Your task to perform on an android device: Search for a dining table on crateandbarrel.com Image 0: 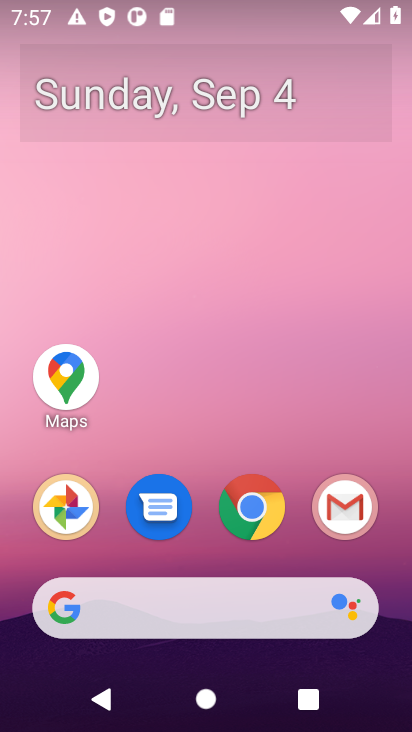
Step 0: click (255, 502)
Your task to perform on an android device: Search for a dining table on crateandbarrel.com Image 1: 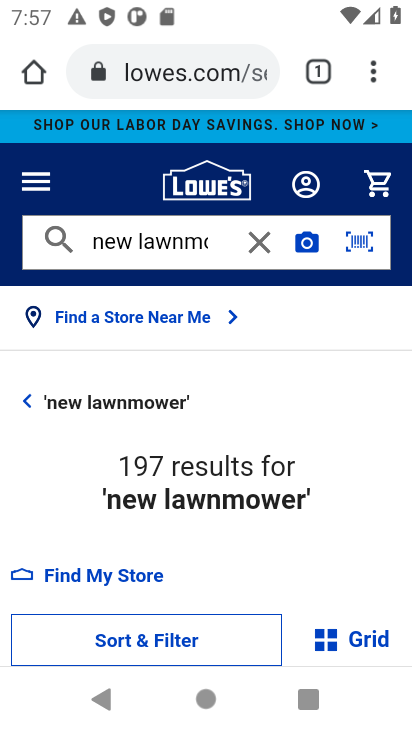
Step 1: click (191, 72)
Your task to perform on an android device: Search for a dining table on crateandbarrel.com Image 2: 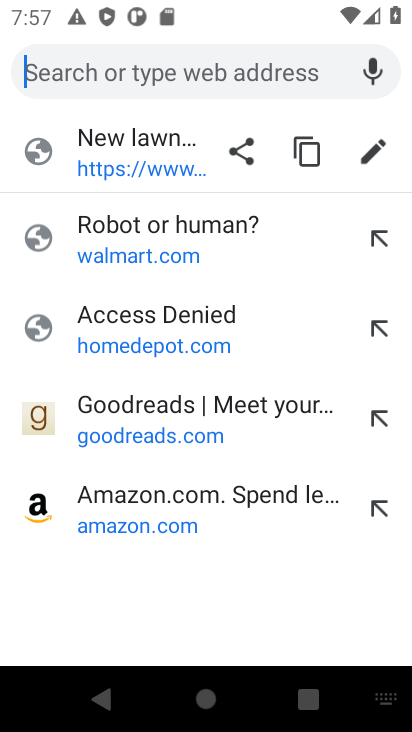
Step 2: type "crateandbarrel.com"
Your task to perform on an android device: Search for a dining table on crateandbarrel.com Image 3: 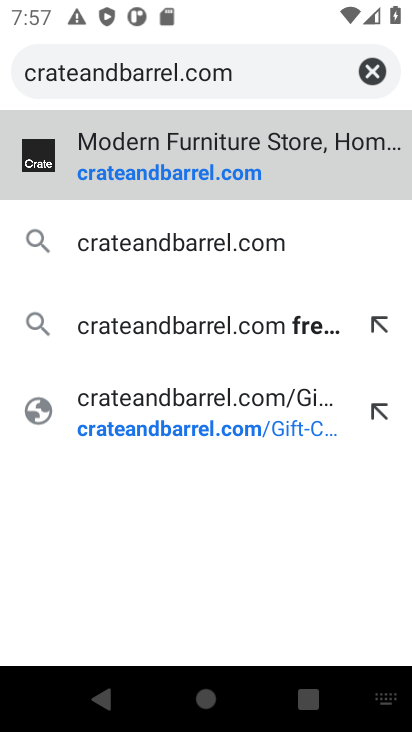
Step 3: click (171, 162)
Your task to perform on an android device: Search for a dining table on crateandbarrel.com Image 4: 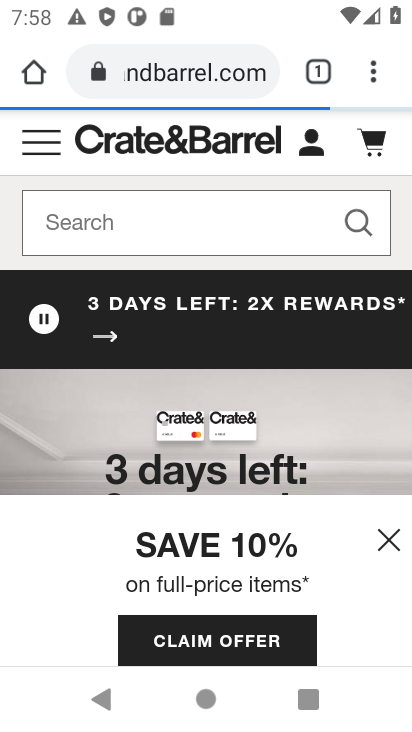
Step 4: click (163, 233)
Your task to perform on an android device: Search for a dining table on crateandbarrel.com Image 5: 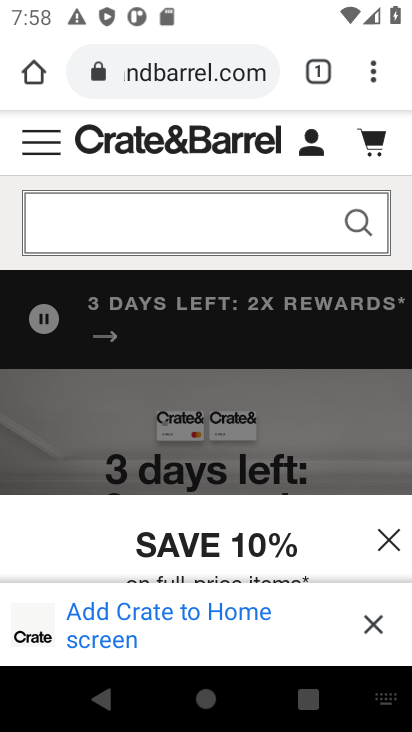
Step 5: type "dining table"
Your task to perform on an android device: Search for a dining table on crateandbarrel.com Image 6: 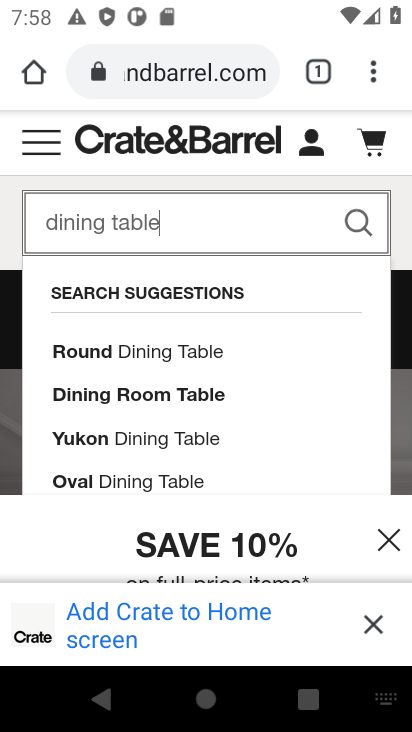
Step 6: press enter
Your task to perform on an android device: Search for a dining table on crateandbarrel.com Image 7: 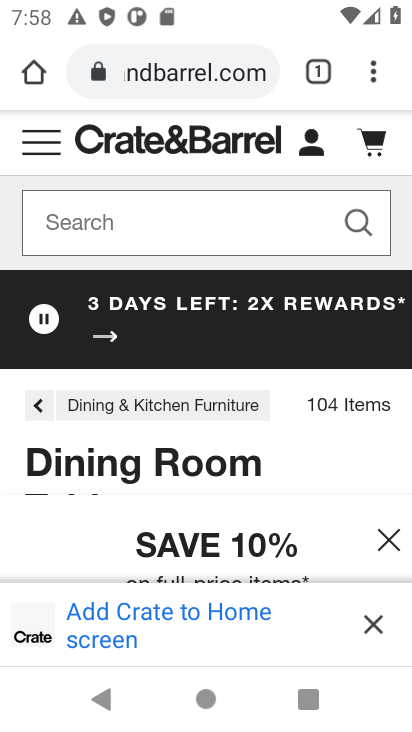
Step 7: task complete